Your task to perform on an android device: Search for Mexican restaurants on Maps Image 0: 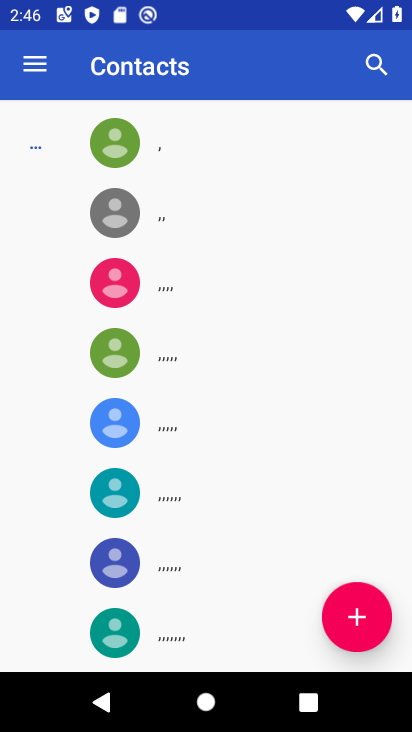
Step 0: press home button
Your task to perform on an android device: Search for Mexican restaurants on Maps Image 1: 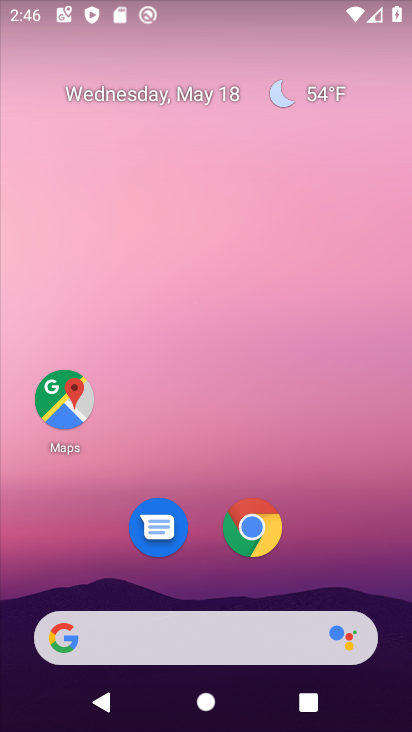
Step 1: drag from (202, 598) to (256, 24)
Your task to perform on an android device: Search for Mexican restaurants on Maps Image 2: 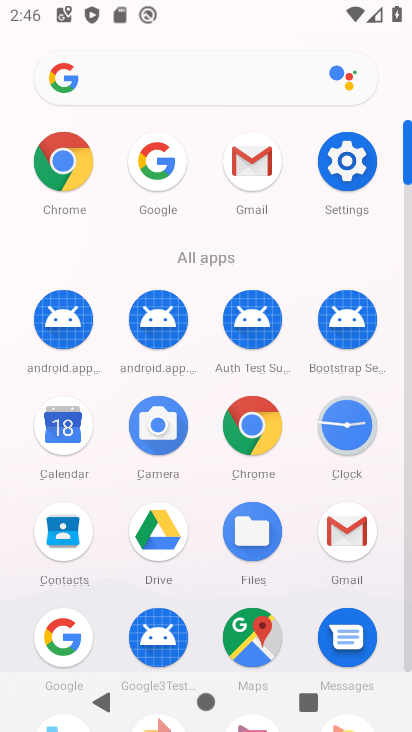
Step 2: click (263, 627)
Your task to perform on an android device: Search for Mexican restaurants on Maps Image 3: 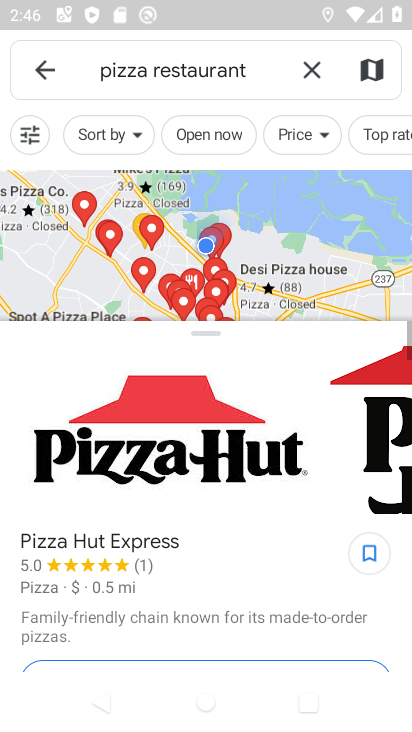
Step 3: click (300, 70)
Your task to perform on an android device: Search for Mexican restaurants on Maps Image 4: 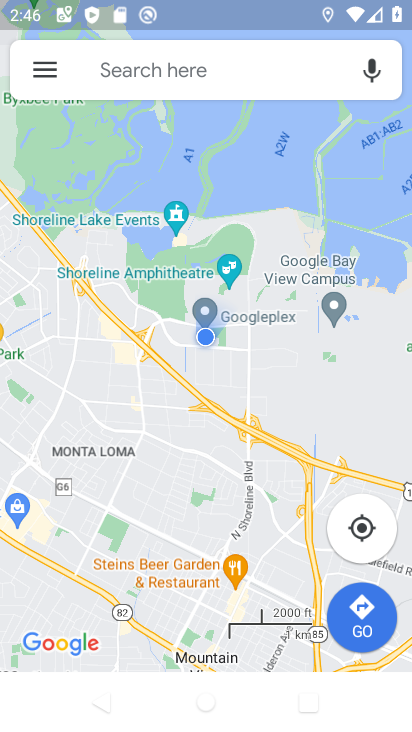
Step 4: click (237, 68)
Your task to perform on an android device: Search for Mexican restaurants on Maps Image 5: 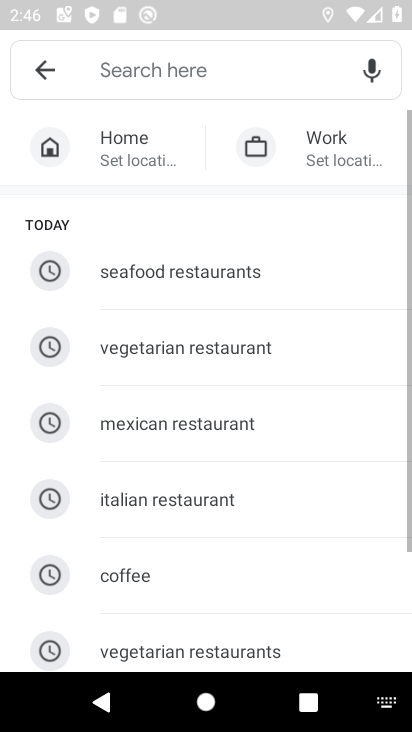
Step 5: click (224, 438)
Your task to perform on an android device: Search for Mexican restaurants on Maps Image 6: 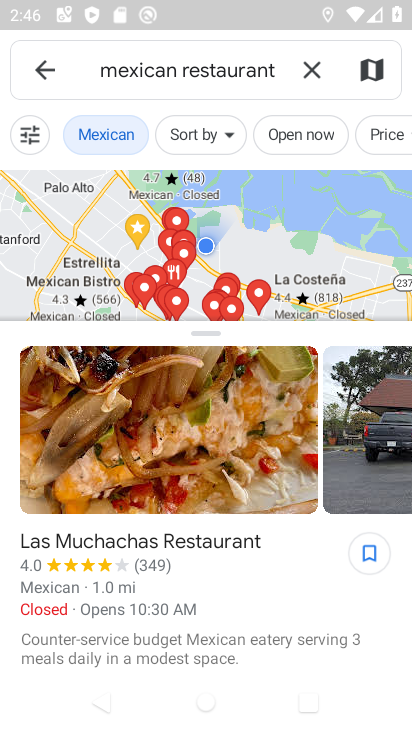
Step 6: task complete